Your task to perform on an android device: open chrome privacy settings Image 0: 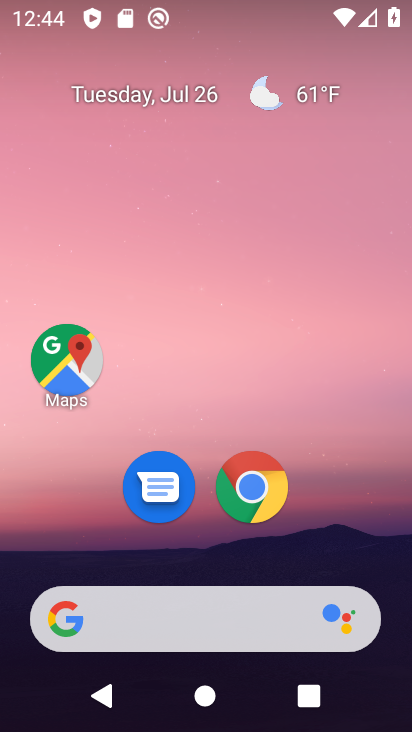
Step 0: click (256, 473)
Your task to perform on an android device: open chrome privacy settings Image 1: 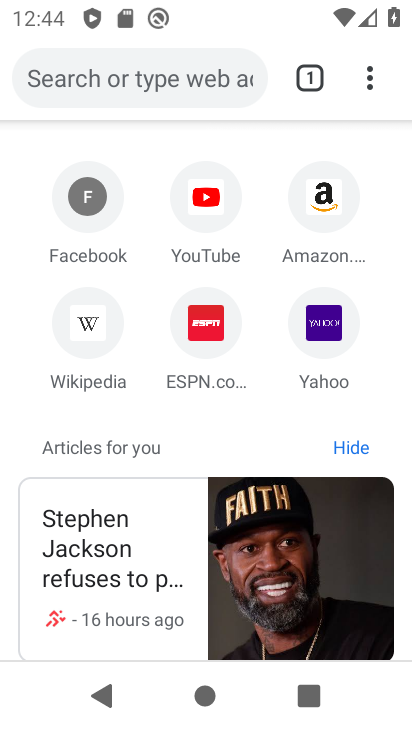
Step 1: drag from (370, 72) to (134, 553)
Your task to perform on an android device: open chrome privacy settings Image 2: 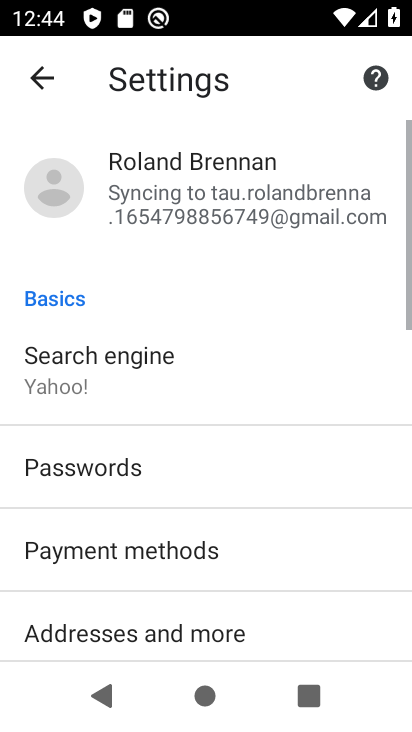
Step 2: drag from (75, 605) to (173, 110)
Your task to perform on an android device: open chrome privacy settings Image 3: 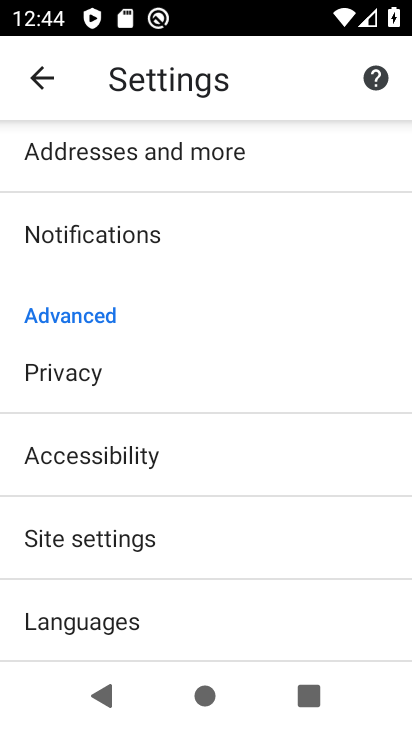
Step 3: click (73, 375)
Your task to perform on an android device: open chrome privacy settings Image 4: 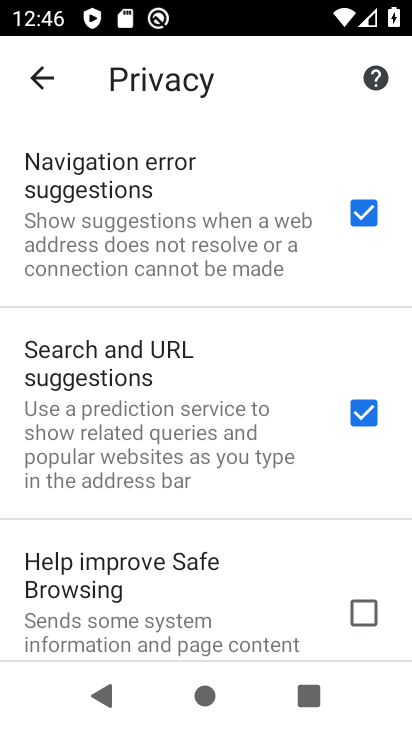
Step 4: task complete